Your task to perform on an android device: open wifi settings Image 0: 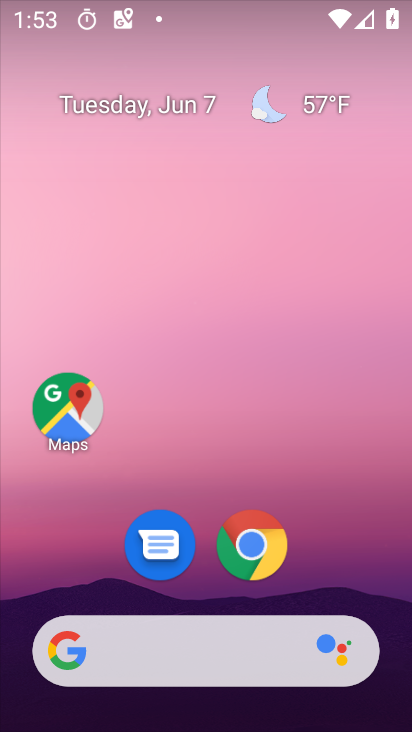
Step 0: drag from (338, 504) to (228, 29)
Your task to perform on an android device: open wifi settings Image 1: 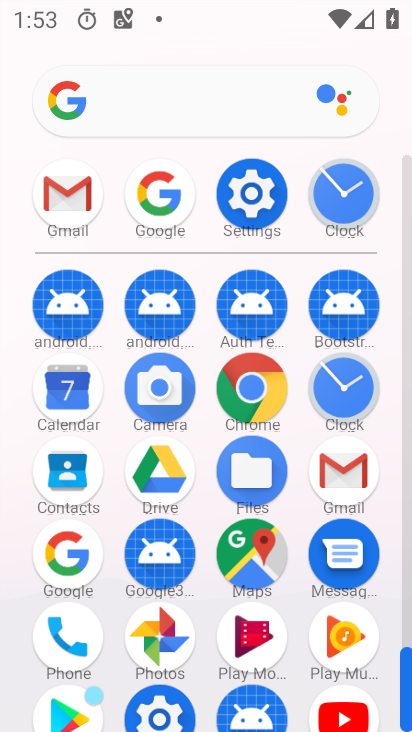
Step 1: click (254, 194)
Your task to perform on an android device: open wifi settings Image 2: 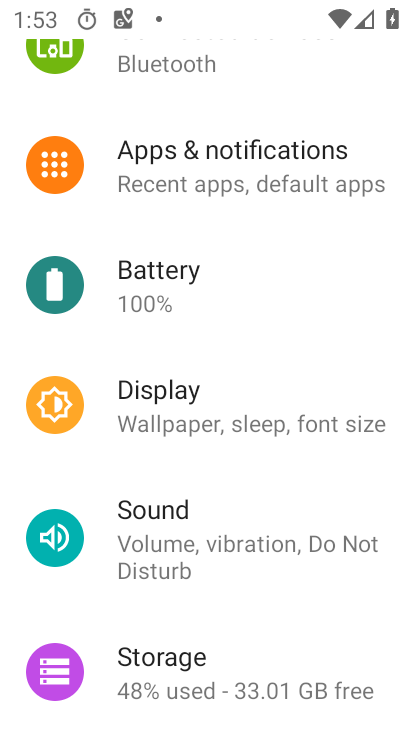
Step 2: drag from (242, 133) to (279, 633)
Your task to perform on an android device: open wifi settings Image 3: 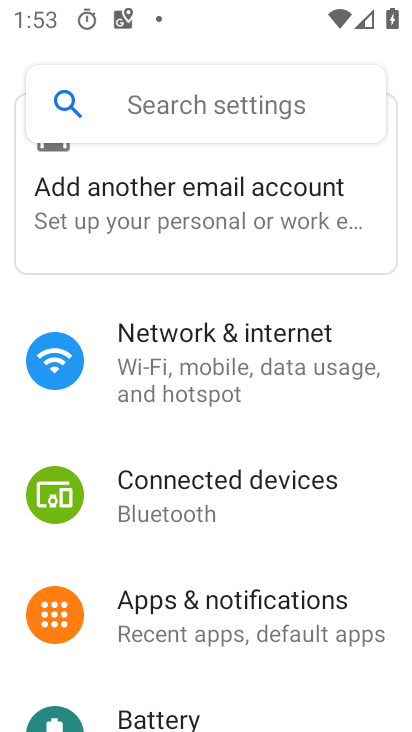
Step 3: click (245, 347)
Your task to perform on an android device: open wifi settings Image 4: 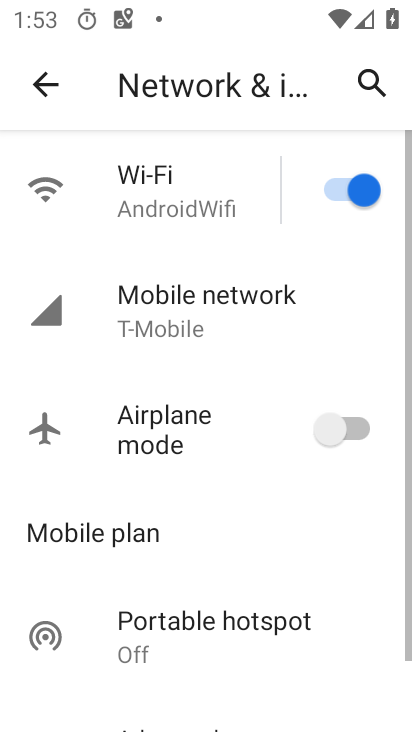
Step 4: click (187, 183)
Your task to perform on an android device: open wifi settings Image 5: 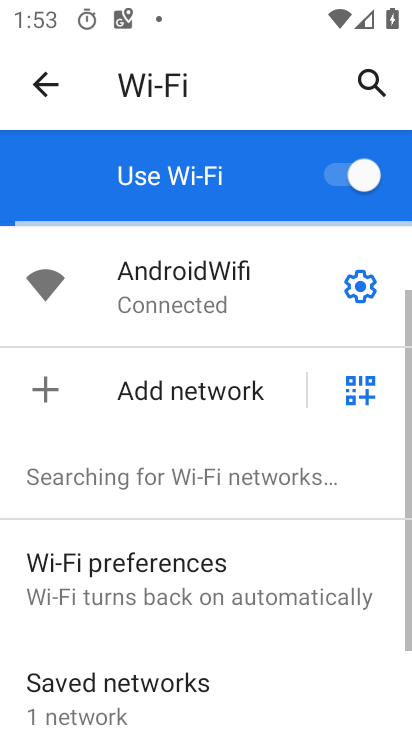
Step 5: task complete